Your task to perform on an android device: Clear the shopping cart on target. Add logitech g pro to the cart on target, then select checkout. Image 0: 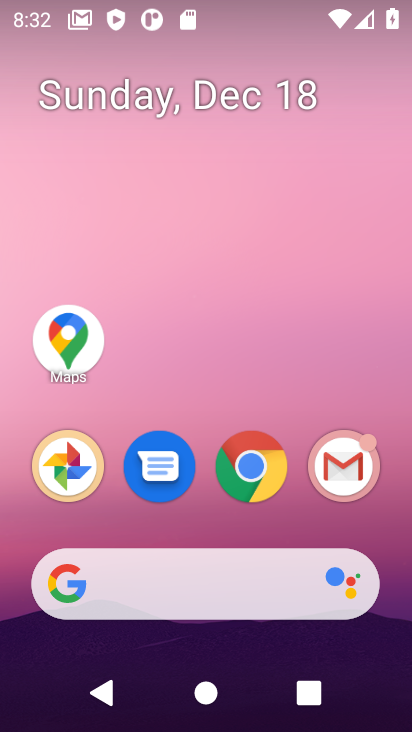
Step 0: click (248, 465)
Your task to perform on an android device: Clear the shopping cart on target. Add logitech g pro to the cart on target, then select checkout. Image 1: 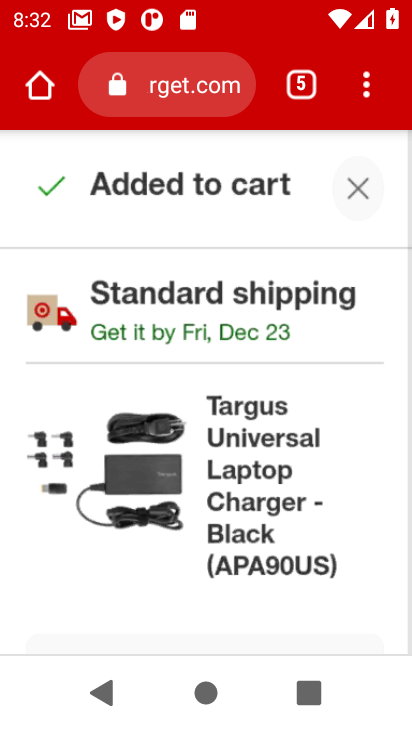
Step 1: click (185, 92)
Your task to perform on an android device: Clear the shopping cart on target. Add logitech g pro to the cart on target, then select checkout. Image 2: 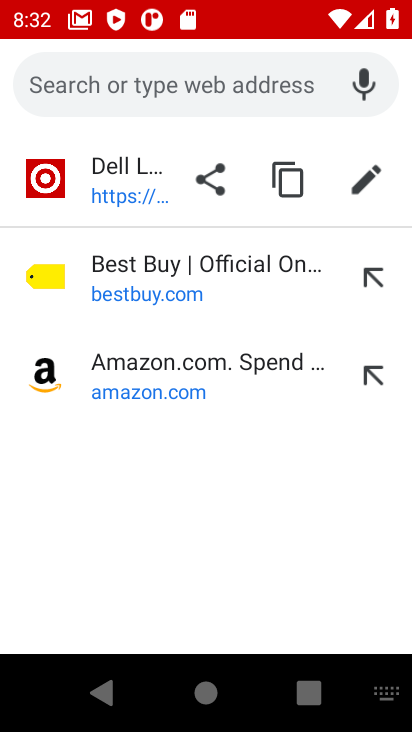
Step 2: click (149, 186)
Your task to perform on an android device: Clear the shopping cart on target. Add logitech g pro to the cart on target, then select checkout. Image 3: 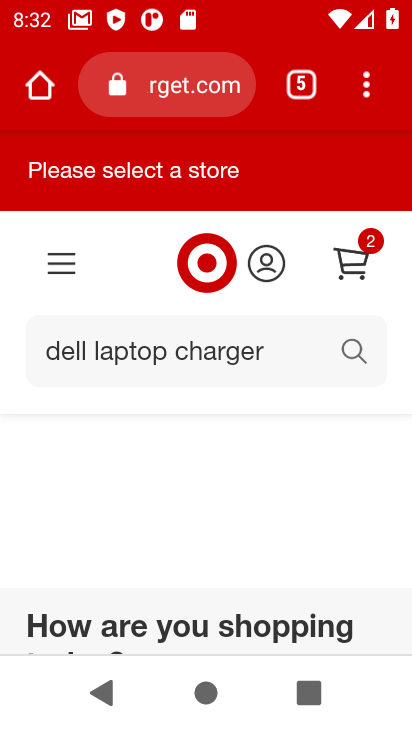
Step 3: click (345, 351)
Your task to perform on an android device: Clear the shopping cart on target. Add logitech g pro to the cart on target, then select checkout. Image 4: 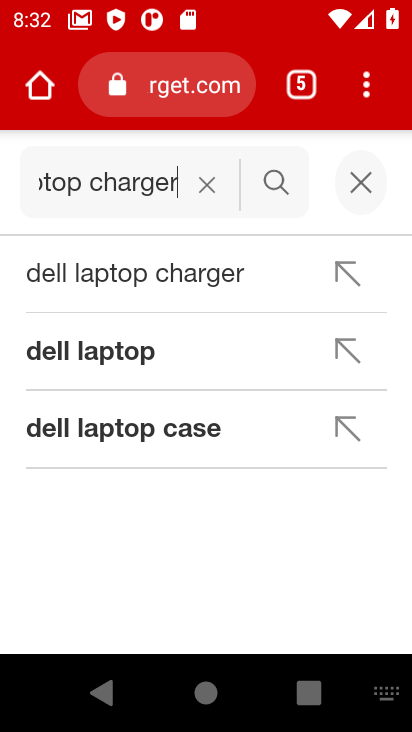
Step 4: click (205, 184)
Your task to perform on an android device: Clear the shopping cart on target. Add logitech g pro to the cart on target, then select checkout. Image 5: 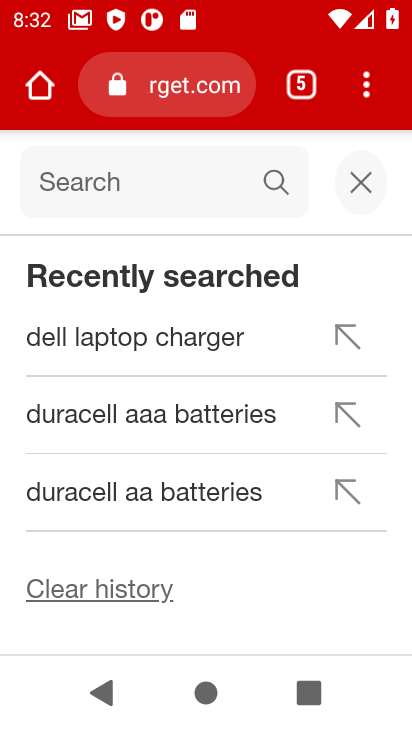
Step 5: click (142, 178)
Your task to perform on an android device: Clear the shopping cart on target. Add logitech g pro to the cart on target, then select checkout. Image 6: 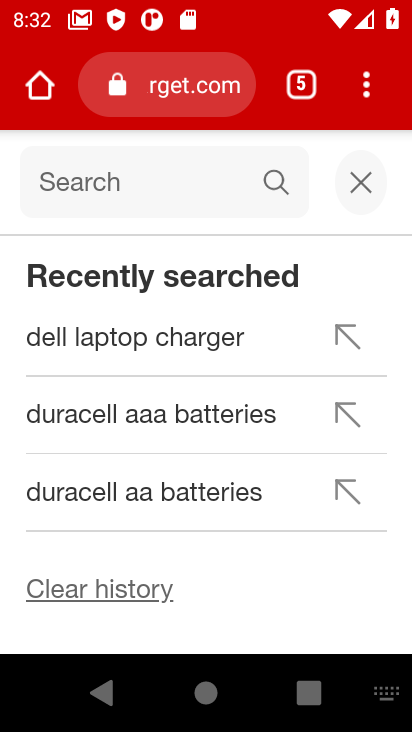
Step 6: type " logitech g pro"
Your task to perform on an android device: Clear the shopping cart on target. Add logitech g pro to the cart on target, then select checkout. Image 7: 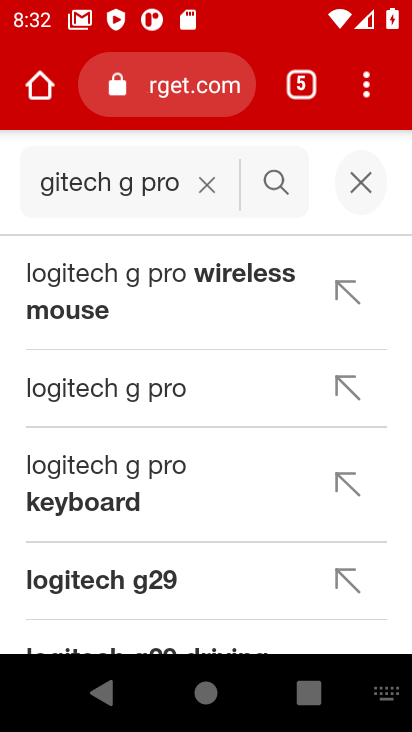
Step 7: click (193, 273)
Your task to perform on an android device: Clear the shopping cart on target. Add logitech g pro to the cart on target, then select checkout. Image 8: 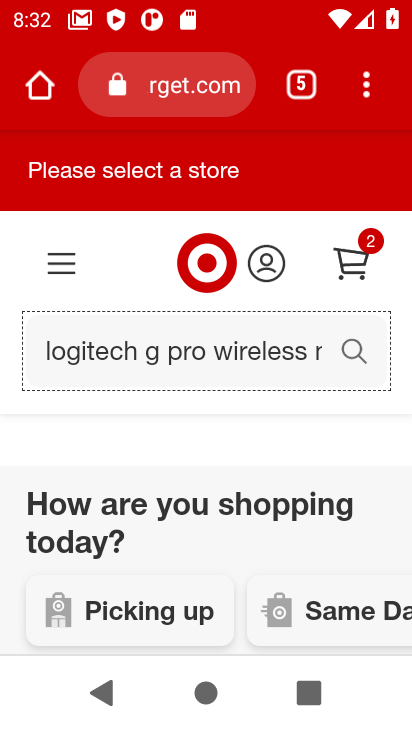
Step 8: drag from (231, 613) to (204, 200)
Your task to perform on an android device: Clear the shopping cart on target. Add logitech g pro to the cart on target, then select checkout. Image 9: 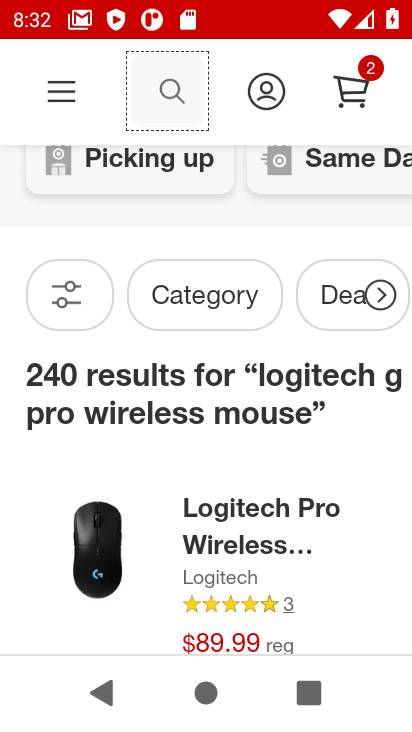
Step 9: click (293, 524)
Your task to perform on an android device: Clear the shopping cart on target. Add logitech g pro to the cart on target, then select checkout. Image 10: 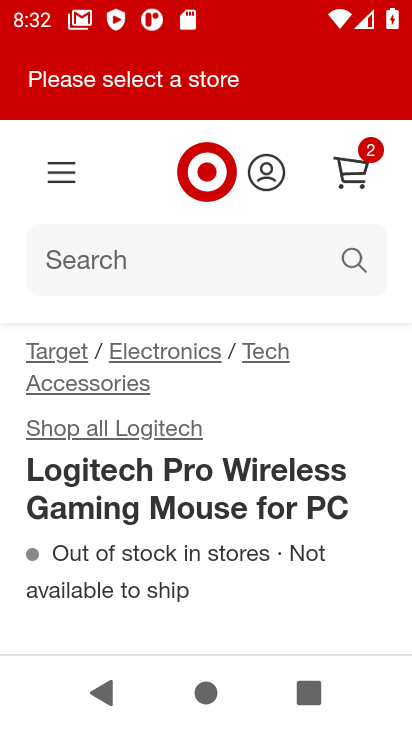
Step 10: drag from (242, 585) to (251, 396)
Your task to perform on an android device: Clear the shopping cart on target. Add logitech g pro to the cart on target, then select checkout. Image 11: 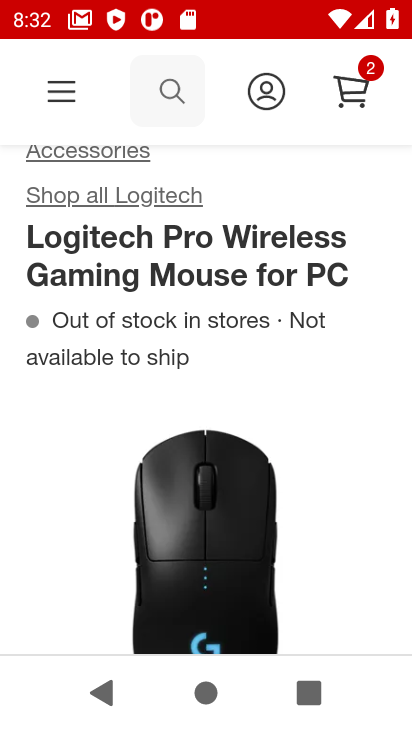
Step 11: drag from (285, 624) to (257, 176)
Your task to perform on an android device: Clear the shopping cart on target. Add logitech g pro to the cart on target, then select checkout. Image 12: 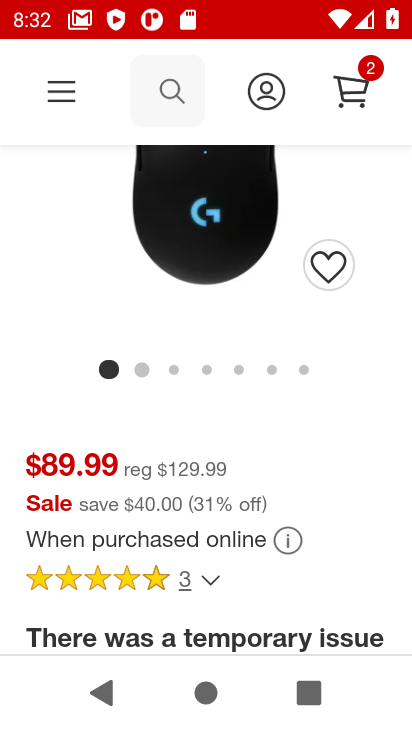
Step 12: drag from (238, 606) to (209, 202)
Your task to perform on an android device: Clear the shopping cart on target. Add logitech g pro to the cart on target, then select checkout. Image 13: 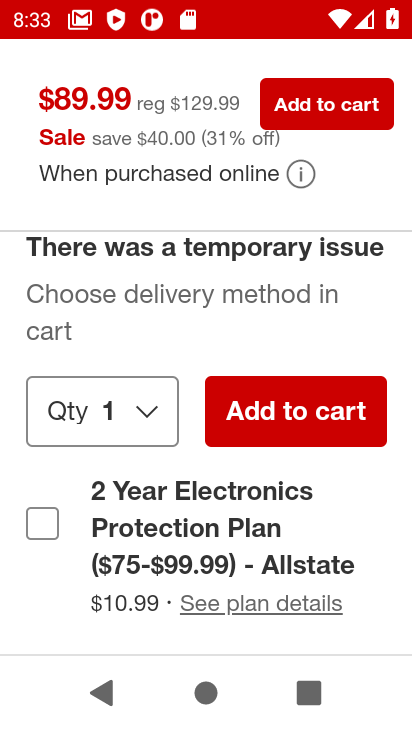
Step 13: click (300, 415)
Your task to perform on an android device: Clear the shopping cart on target. Add logitech g pro to the cart on target, then select checkout. Image 14: 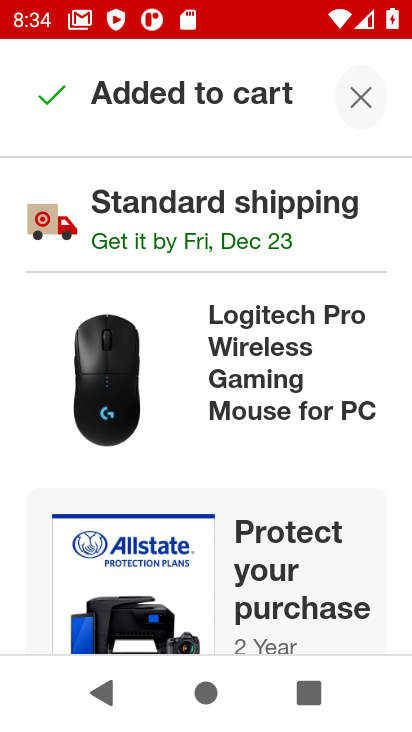
Step 14: task complete